Your task to perform on an android device: clear history in the chrome app Image 0: 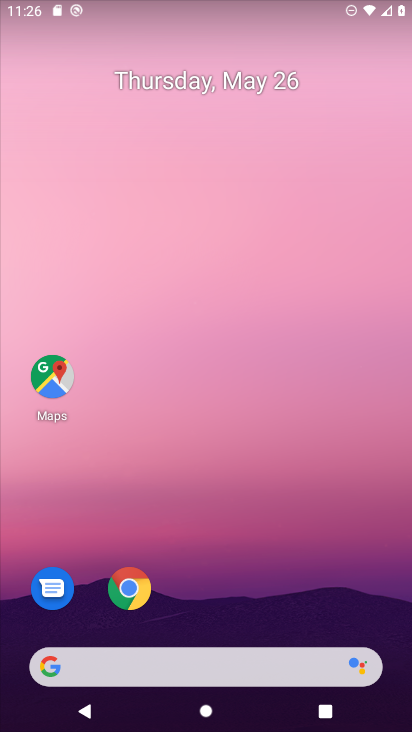
Step 0: click (129, 585)
Your task to perform on an android device: clear history in the chrome app Image 1: 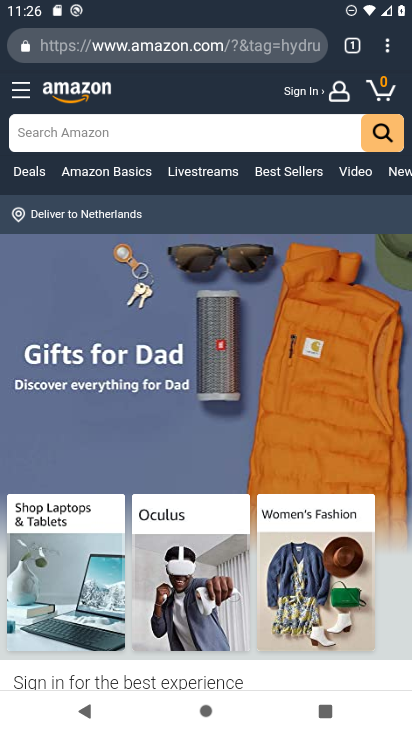
Step 1: click (386, 52)
Your task to perform on an android device: clear history in the chrome app Image 2: 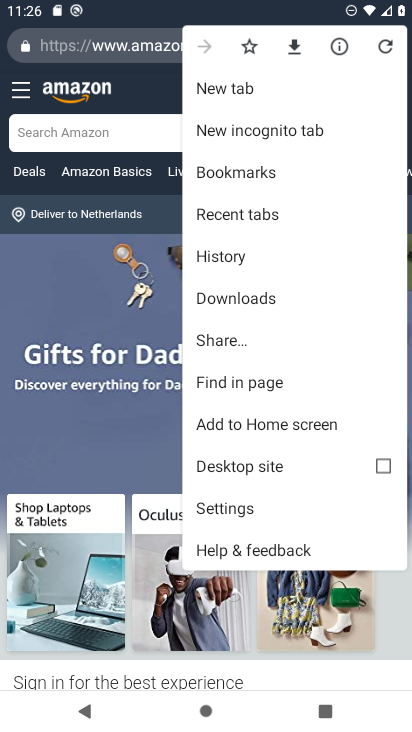
Step 2: click (215, 247)
Your task to perform on an android device: clear history in the chrome app Image 3: 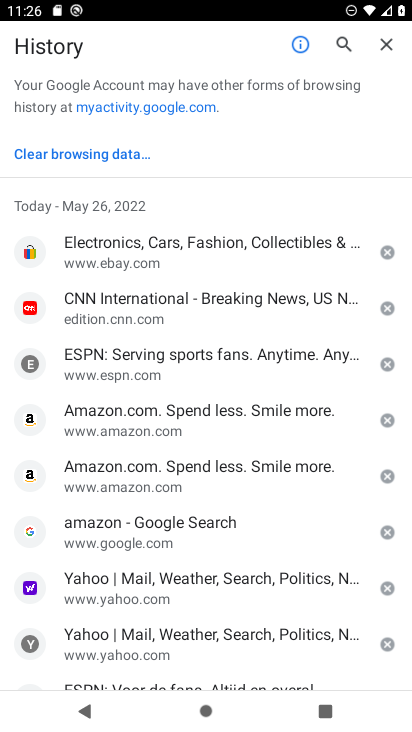
Step 3: click (83, 157)
Your task to perform on an android device: clear history in the chrome app Image 4: 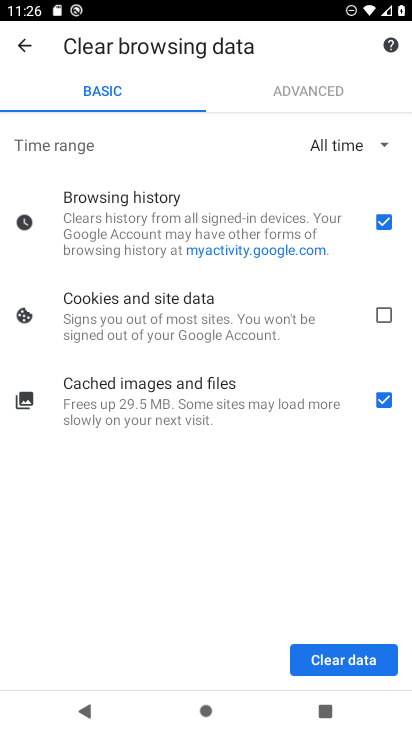
Step 4: click (388, 401)
Your task to perform on an android device: clear history in the chrome app Image 5: 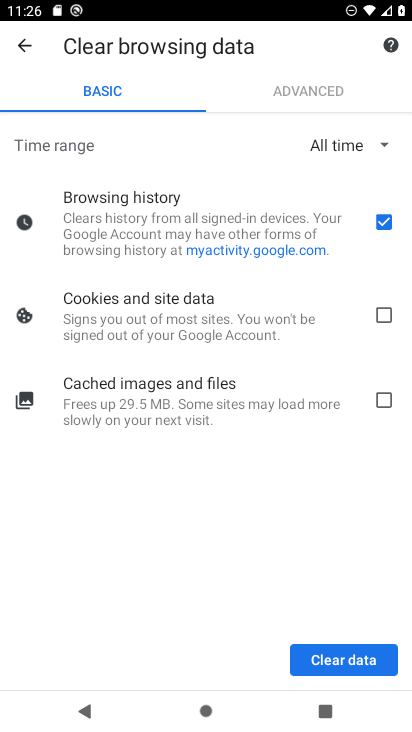
Step 5: click (332, 660)
Your task to perform on an android device: clear history in the chrome app Image 6: 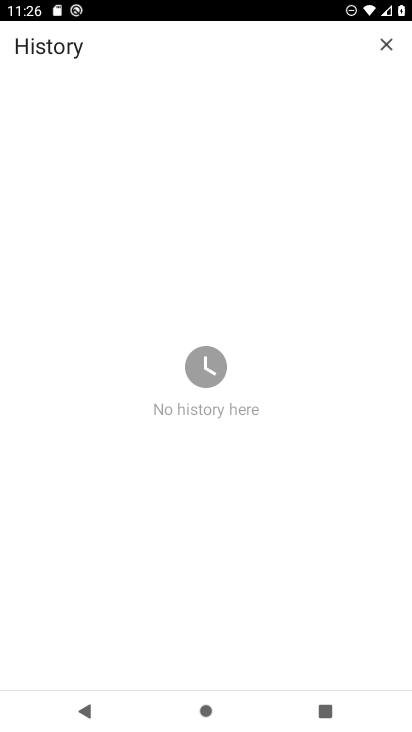
Step 6: task complete